Your task to perform on an android device: Check the news Image 0: 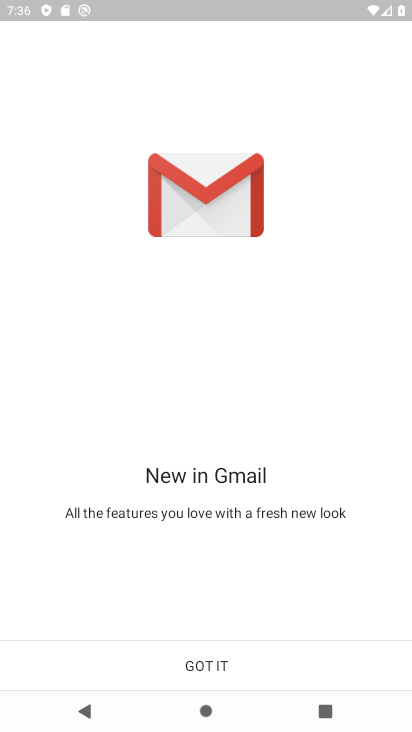
Step 0: press back button
Your task to perform on an android device: Check the news Image 1: 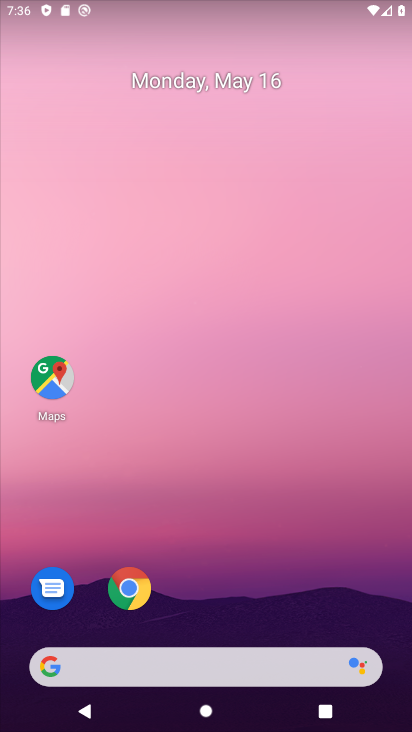
Step 1: drag from (277, 490) to (233, 10)
Your task to perform on an android device: Check the news Image 2: 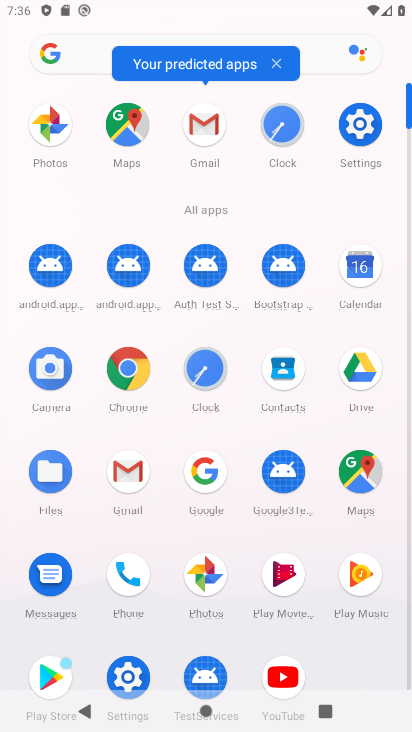
Step 2: drag from (7, 592) to (26, 275)
Your task to perform on an android device: Check the news Image 3: 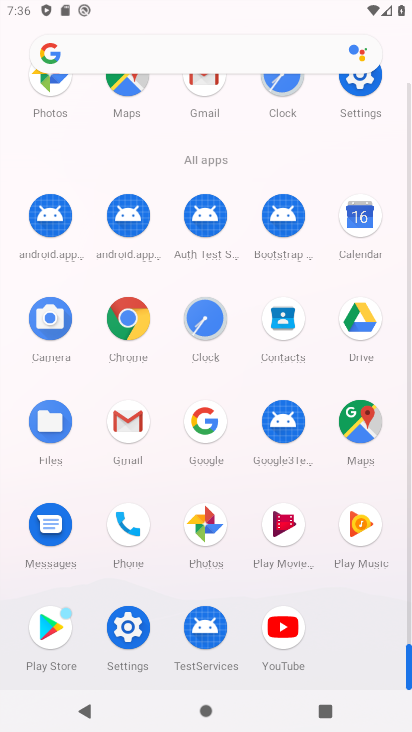
Step 3: click (124, 314)
Your task to perform on an android device: Check the news Image 4: 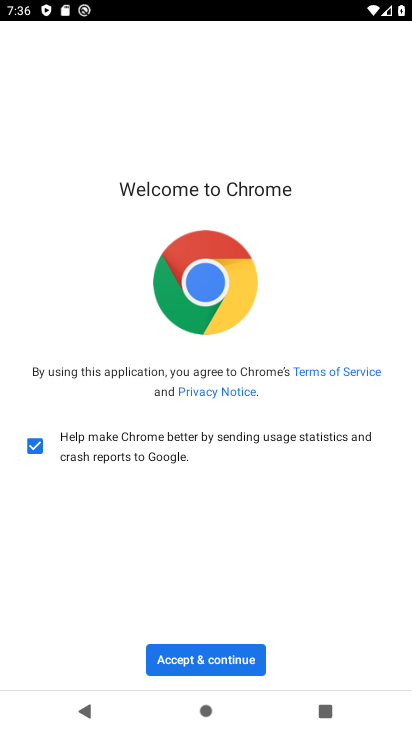
Step 4: click (197, 647)
Your task to perform on an android device: Check the news Image 5: 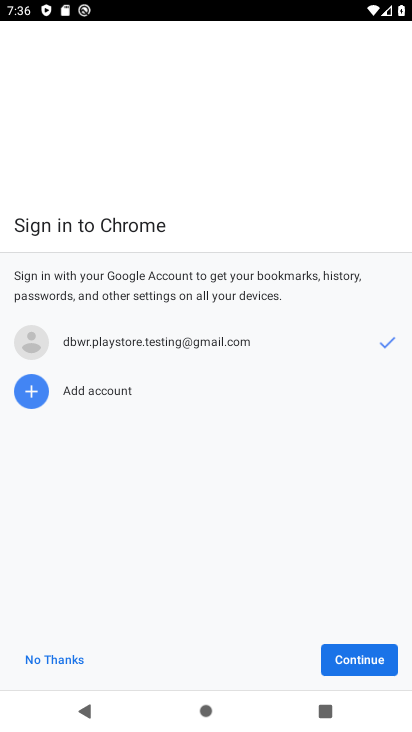
Step 5: click (375, 665)
Your task to perform on an android device: Check the news Image 6: 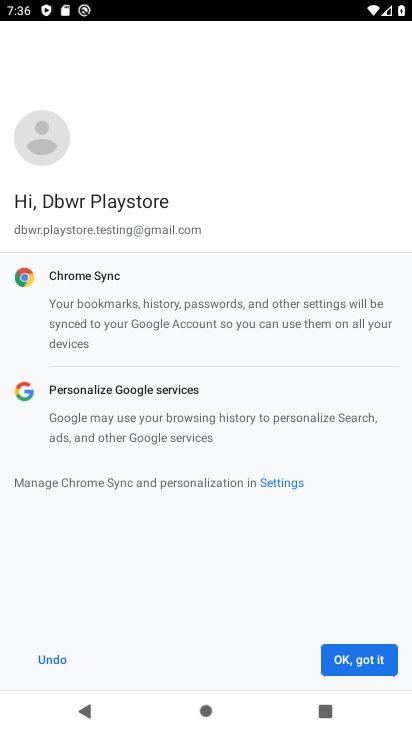
Step 6: click (375, 665)
Your task to perform on an android device: Check the news Image 7: 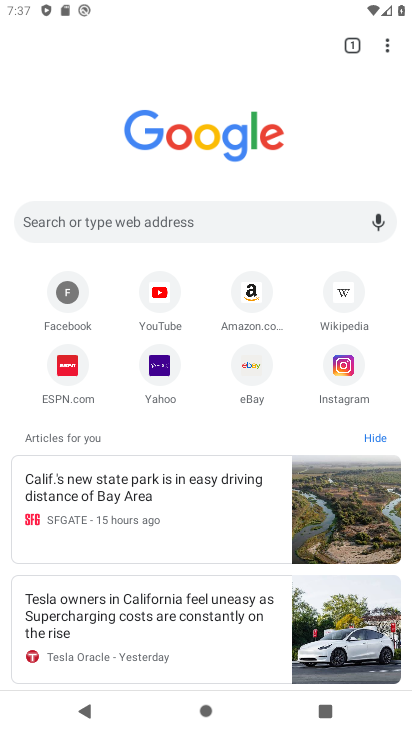
Step 7: click (223, 233)
Your task to perform on an android device: Check the news Image 8: 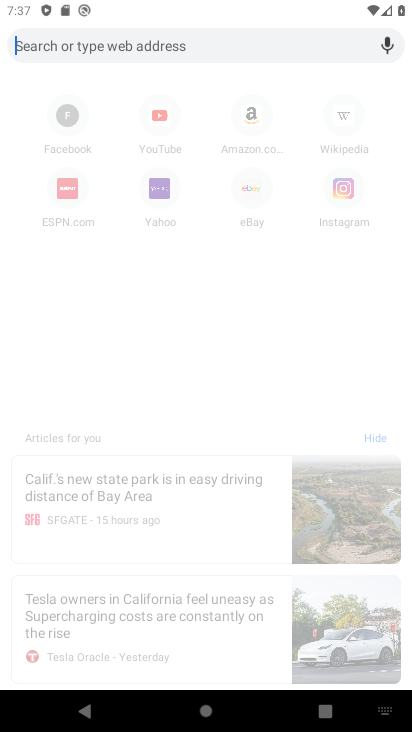
Step 8: type "Check the news"
Your task to perform on an android device: Check the news Image 9: 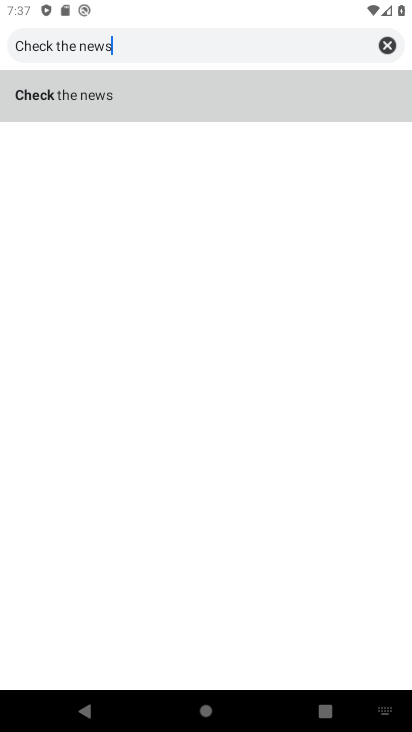
Step 9: type ""
Your task to perform on an android device: Check the news Image 10: 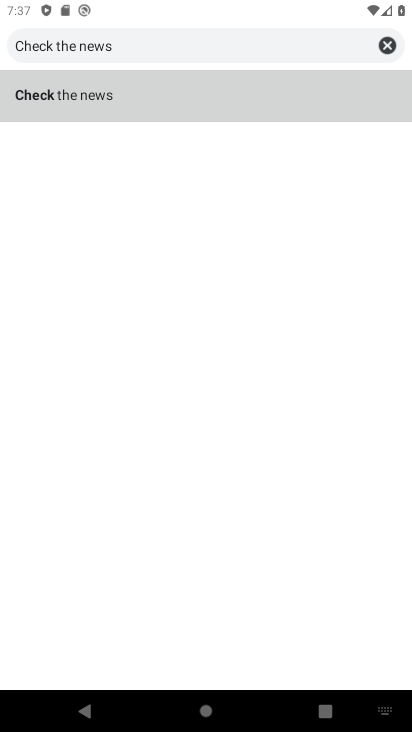
Step 10: click (80, 97)
Your task to perform on an android device: Check the news Image 11: 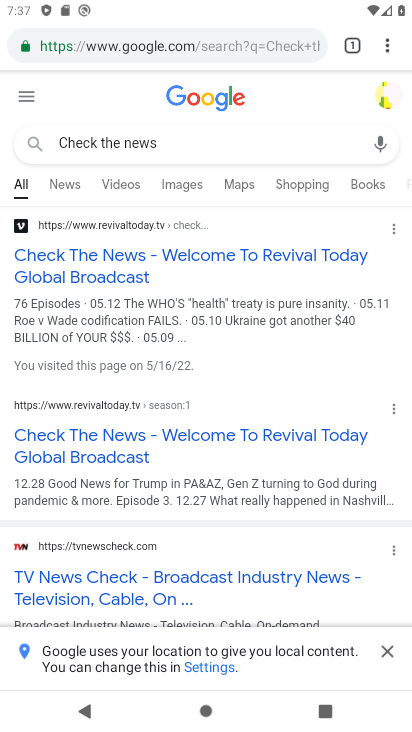
Step 11: click (83, 181)
Your task to perform on an android device: Check the news Image 12: 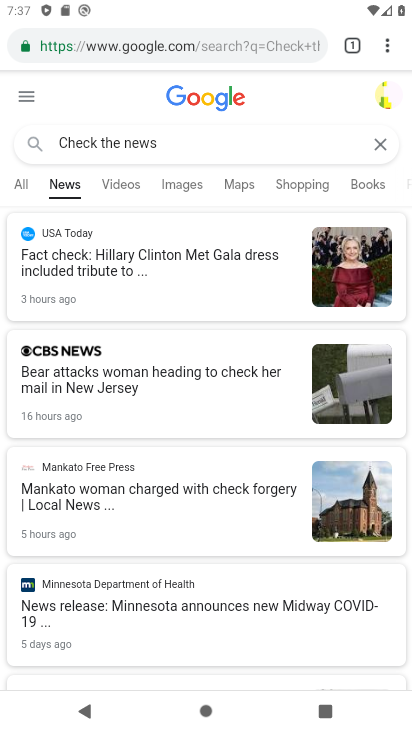
Step 12: task complete